Your task to perform on an android device: check storage Image 0: 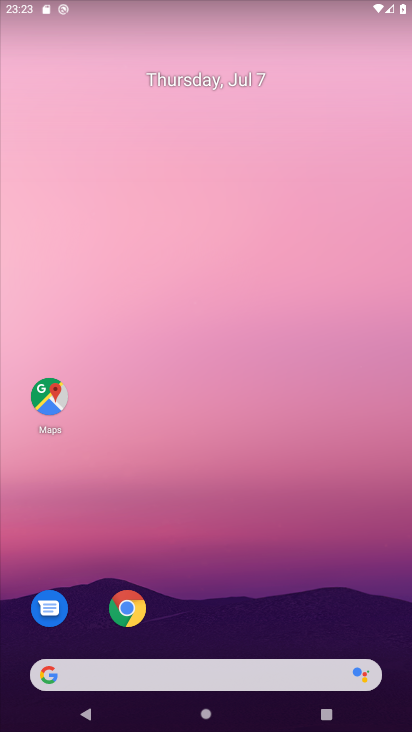
Step 0: drag from (254, 627) to (215, 0)
Your task to perform on an android device: check storage Image 1: 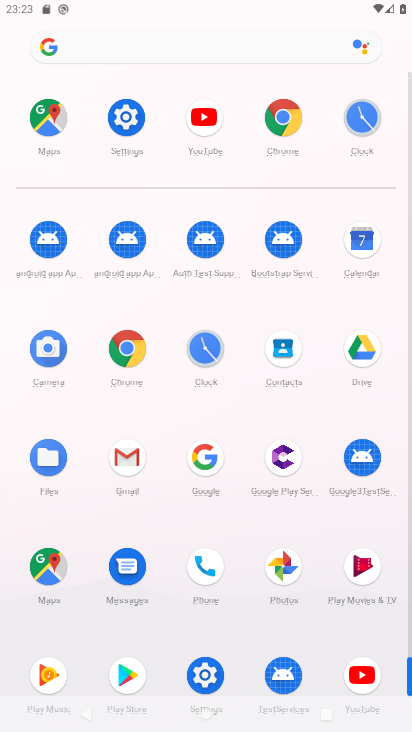
Step 1: click (125, 131)
Your task to perform on an android device: check storage Image 2: 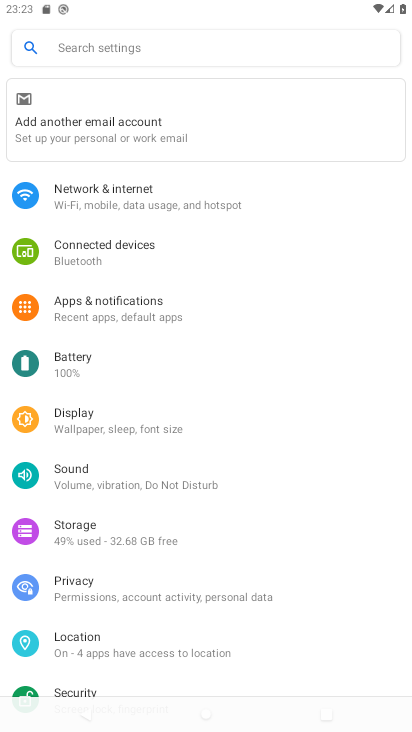
Step 2: click (129, 519)
Your task to perform on an android device: check storage Image 3: 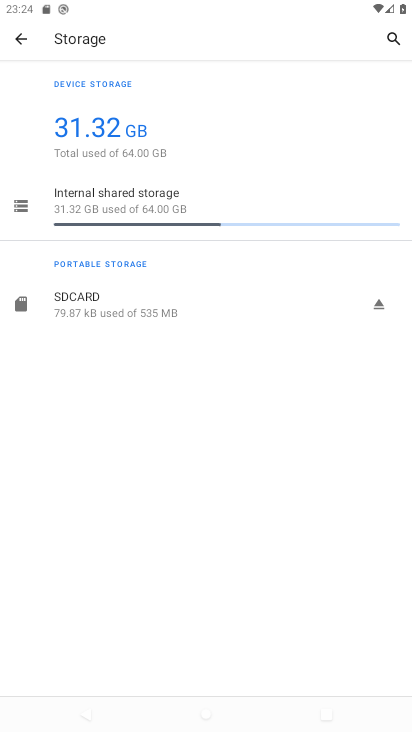
Step 3: task complete